Your task to perform on an android device: clear history in the chrome app Image 0: 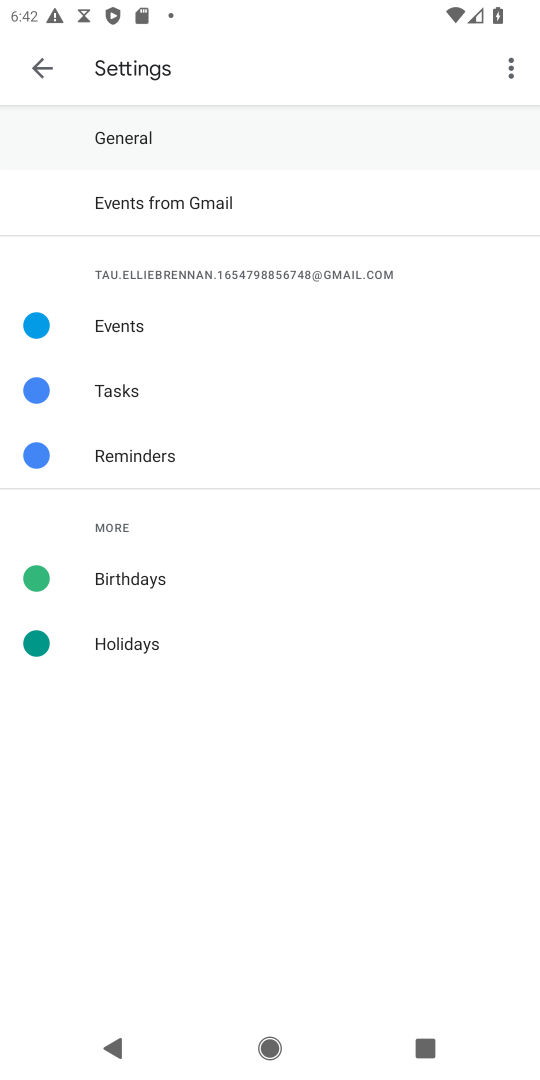
Step 0: press home button
Your task to perform on an android device: clear history in the chrome app Image 1: 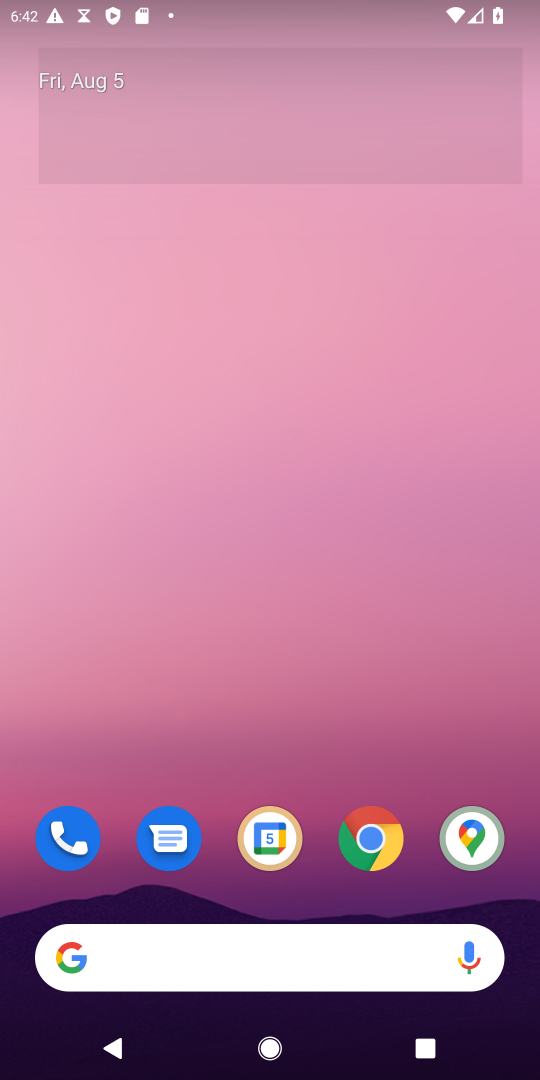
Step 1: drag from (339, 732) to (9, 171)
Your task to perform on an android device: clear history in the chrome app Image 2: 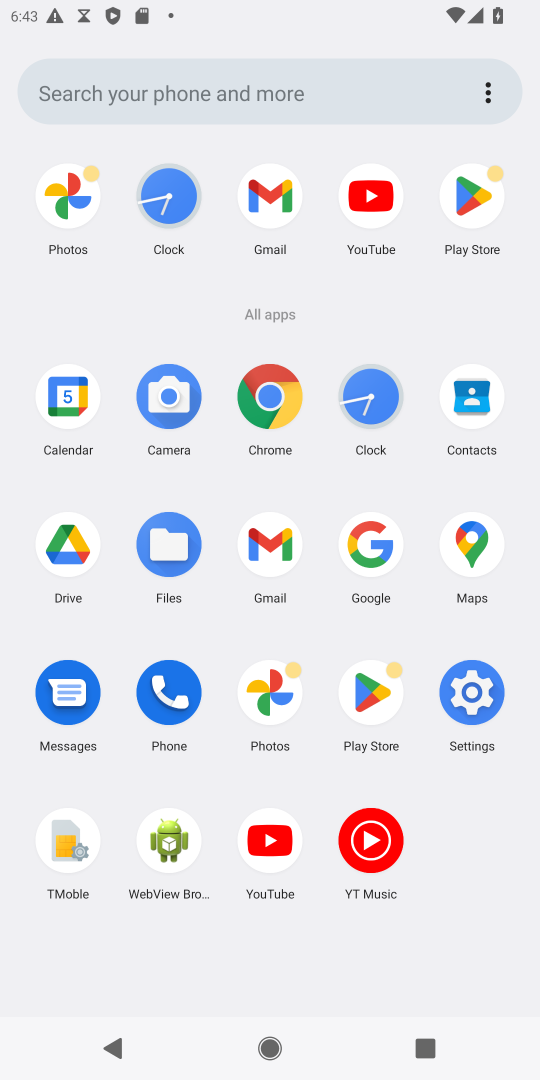
Step 2: click (258, 406)
Your task to perform on an android device: clear history in the chrome app Image 3: 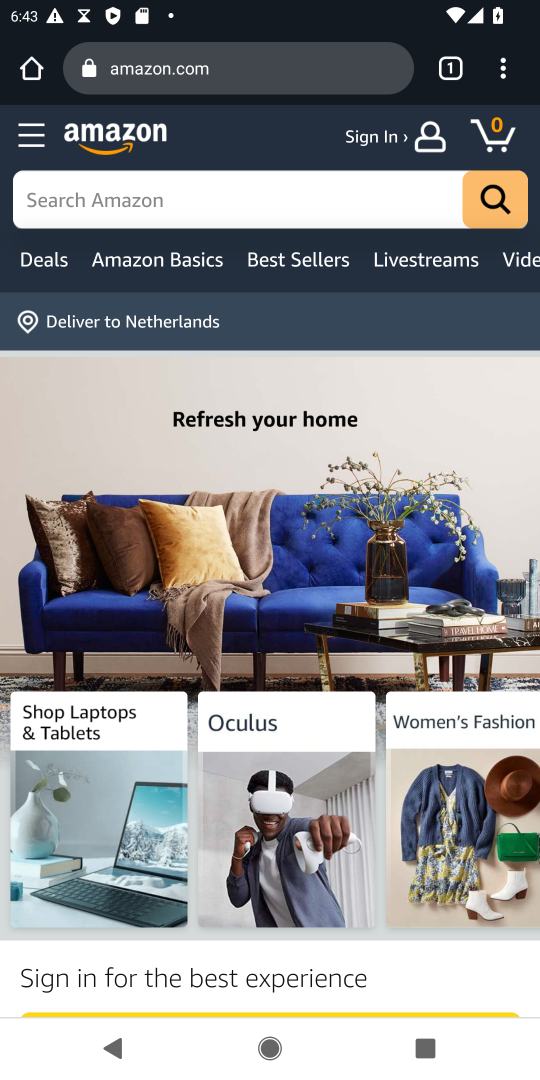
Step 3: drag from (498, 62) to (327, 849)
Your task to perform on an android device: clear history in the chrome app Image 4: 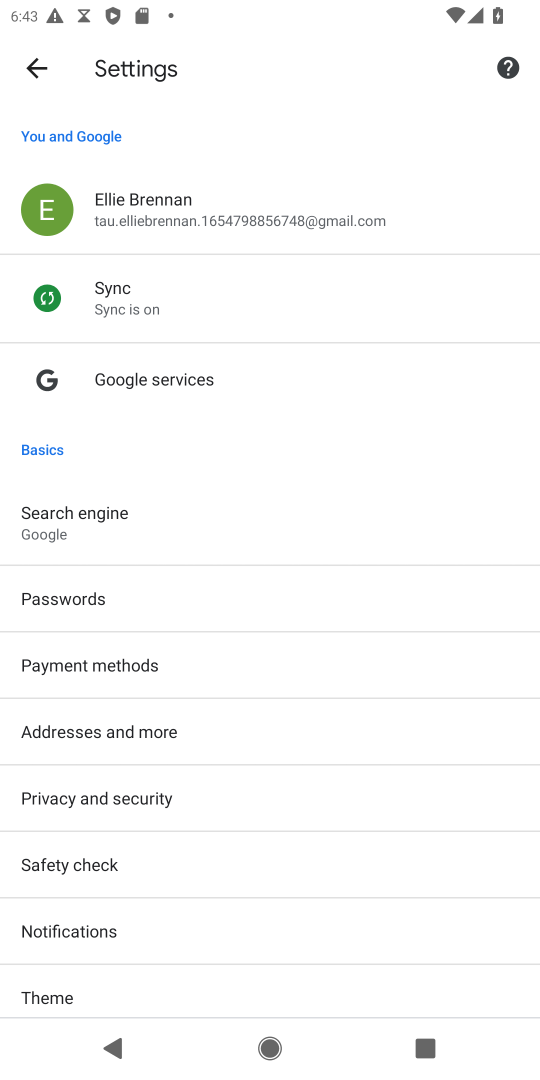
Step 4: click (93, 798)
Your task to perform on an android device: clear history in the chrome app Image 5: 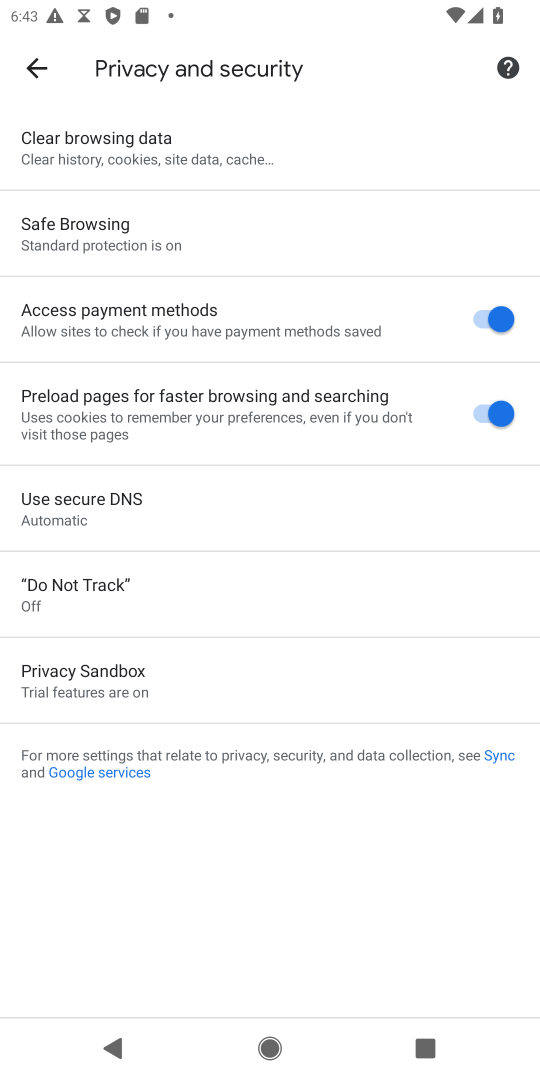
Step 5: click (41, 143)
Your task to perform on an android device: clear history in the chrome app Image 6: 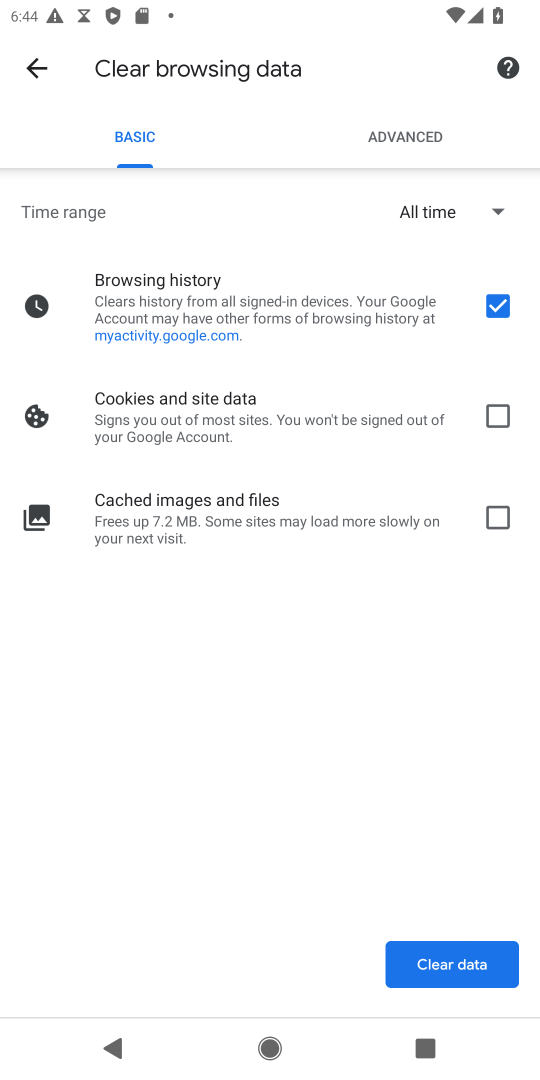
Step 6: click (496, 953)
Your task to perform on an android device: clear history in the chrome app Image 7: 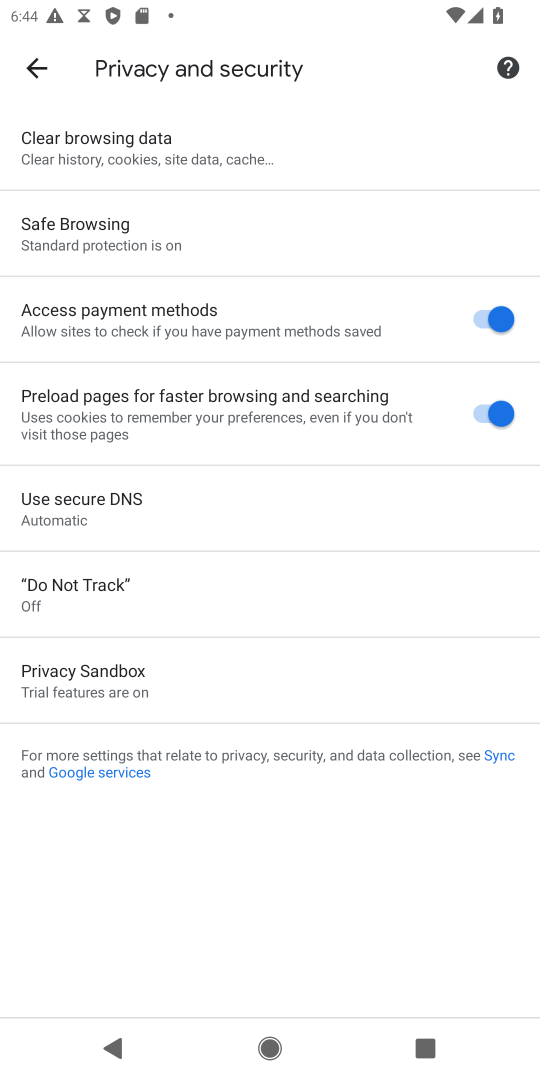
Step 7: task complete